Your task to perform on an android device: open the mobile data screen to see how much data has been used Image 0: 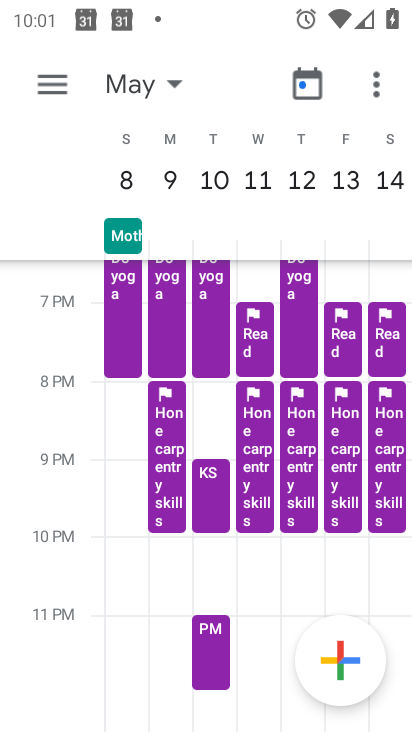
Step 0: press home button
Your task to perform on an android device: open the mobile data screen to see how much data has been used Image 1: 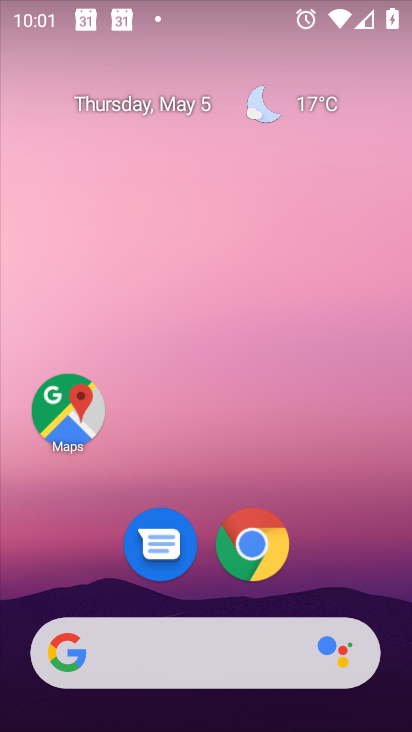
Step 1: drag from (330, 531) to (374, 131)
Your task to perform on an android device: open the mobile data screen to see how much data has been used Image 2: 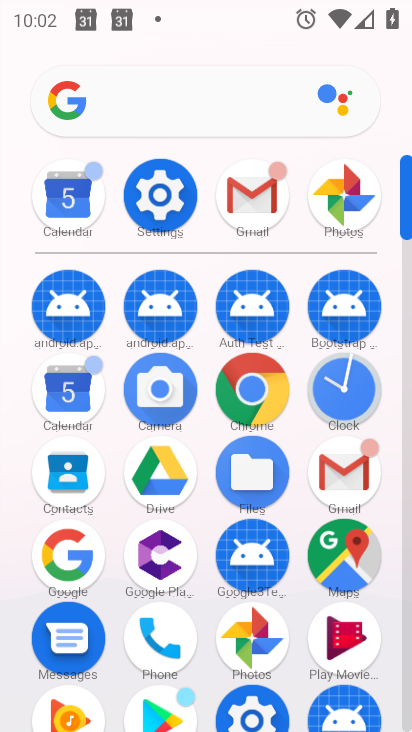
Step 2: click (166, 193)
Your task to perform on an android device: open the mobile data screen to see how much data has been used Image 3: 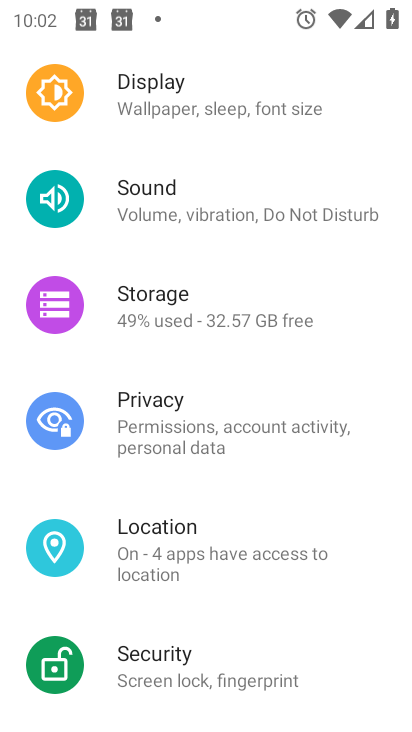
Step 3: drag from (187, 166) to (300, 710)
Your task to perform on an android device: open the mobile data screen to see how much data has been used Image 4: 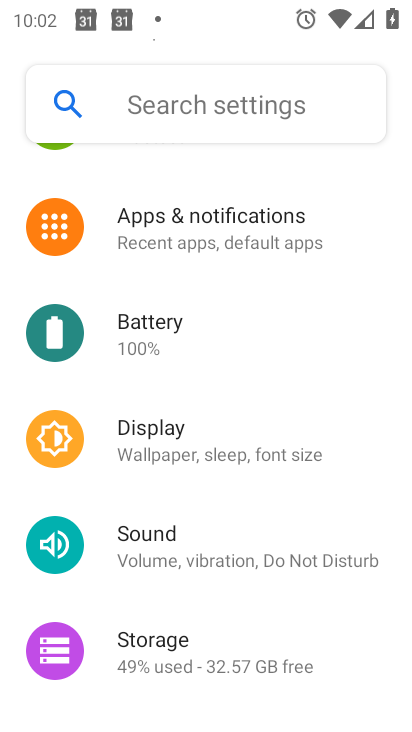
Step 4: drag from (291, 510) to (388, 725)
Your task to perform on an android device: open the mobile data screen to see how much data has been used Image 5: 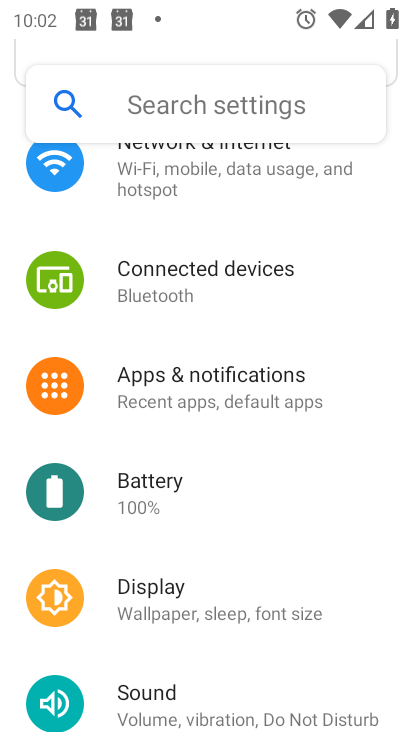
Step 5: drag from (189, 214) to (253, 337)
Your task to perform on an android device: open the mobile data screen to see how much data has been used Image 6: 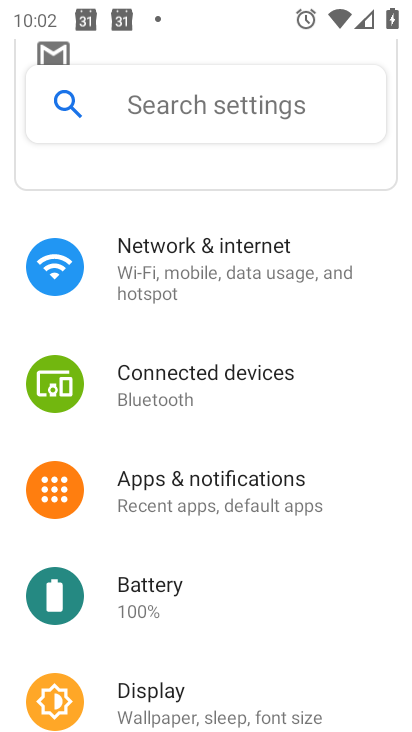
Step 6: click (199, 272)
Your task to perform on an android device: open the mobile data screen to see how much data has been used Image 7: 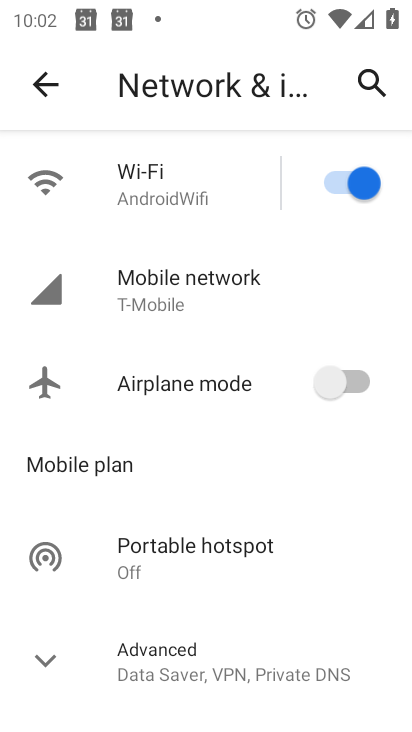
Step 7: click (207, 283)
Your task to perform on an android device: open the mobile data screen to see how much data has been used Image 8: 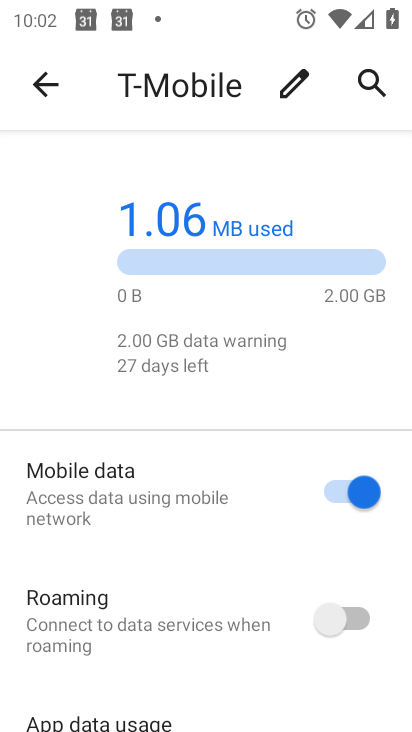
Step 8: task complete